Your task to perform on an android device: change alarm snooze length Image 0: 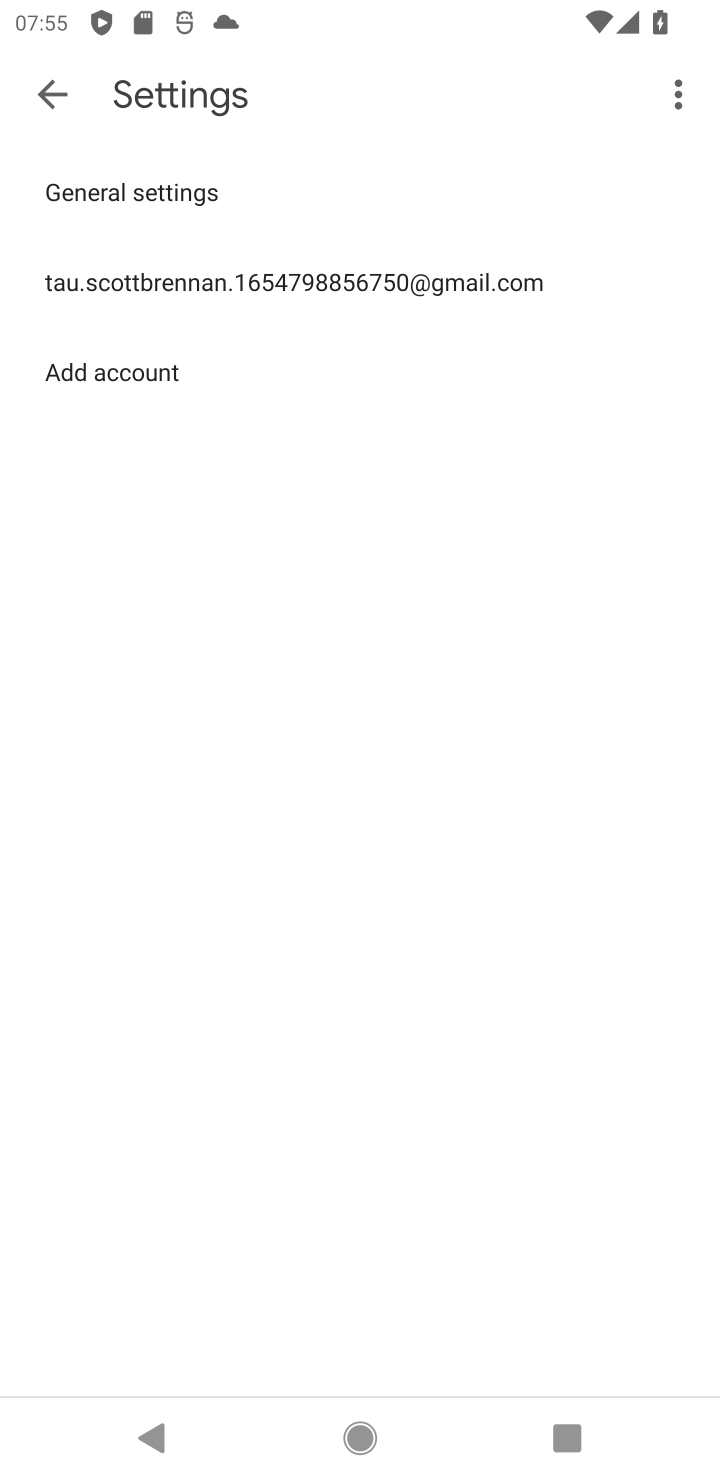
Step 0: press home button
Your task to perform on an android device: change alarm snooze length Image 1: 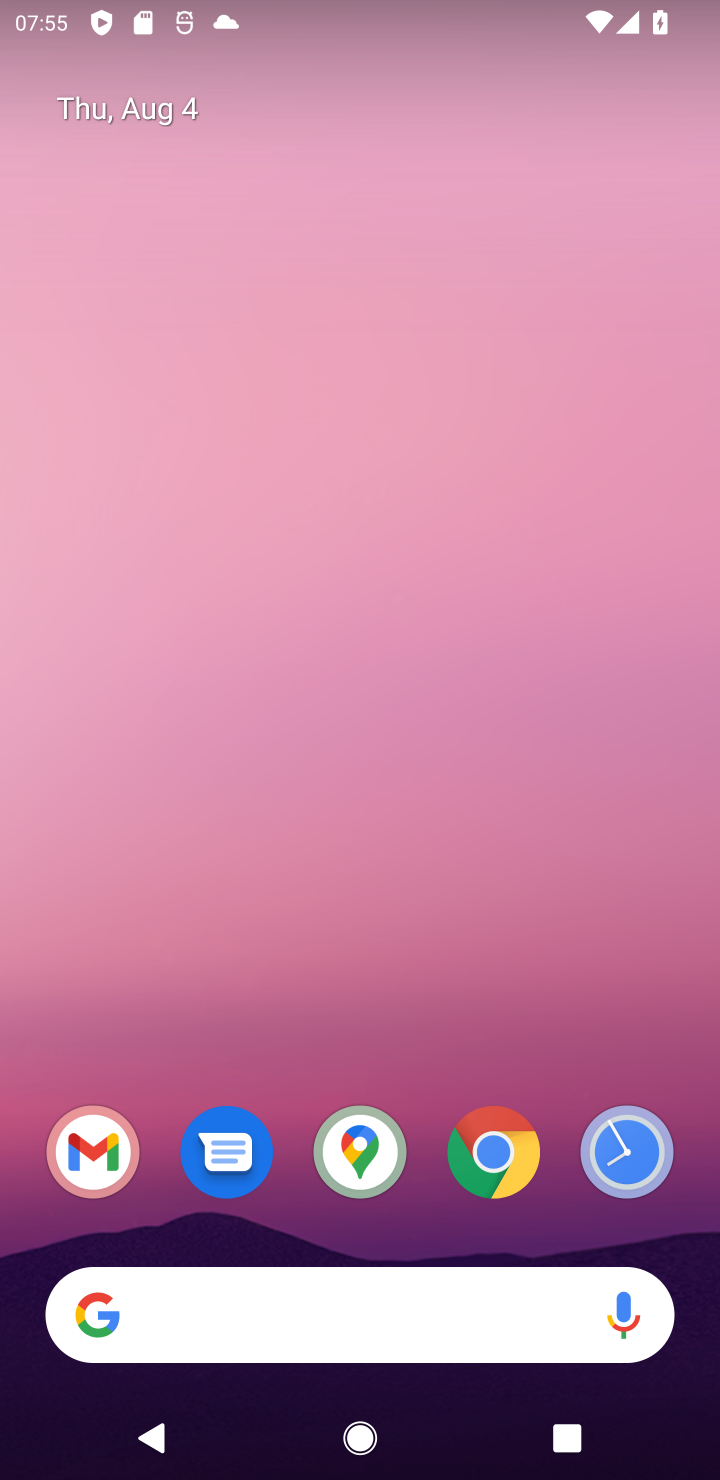
Step 1: drag from (304, 665) to (493, 216)
Your task to perform on an android device: change alarm snooze length Image 2: 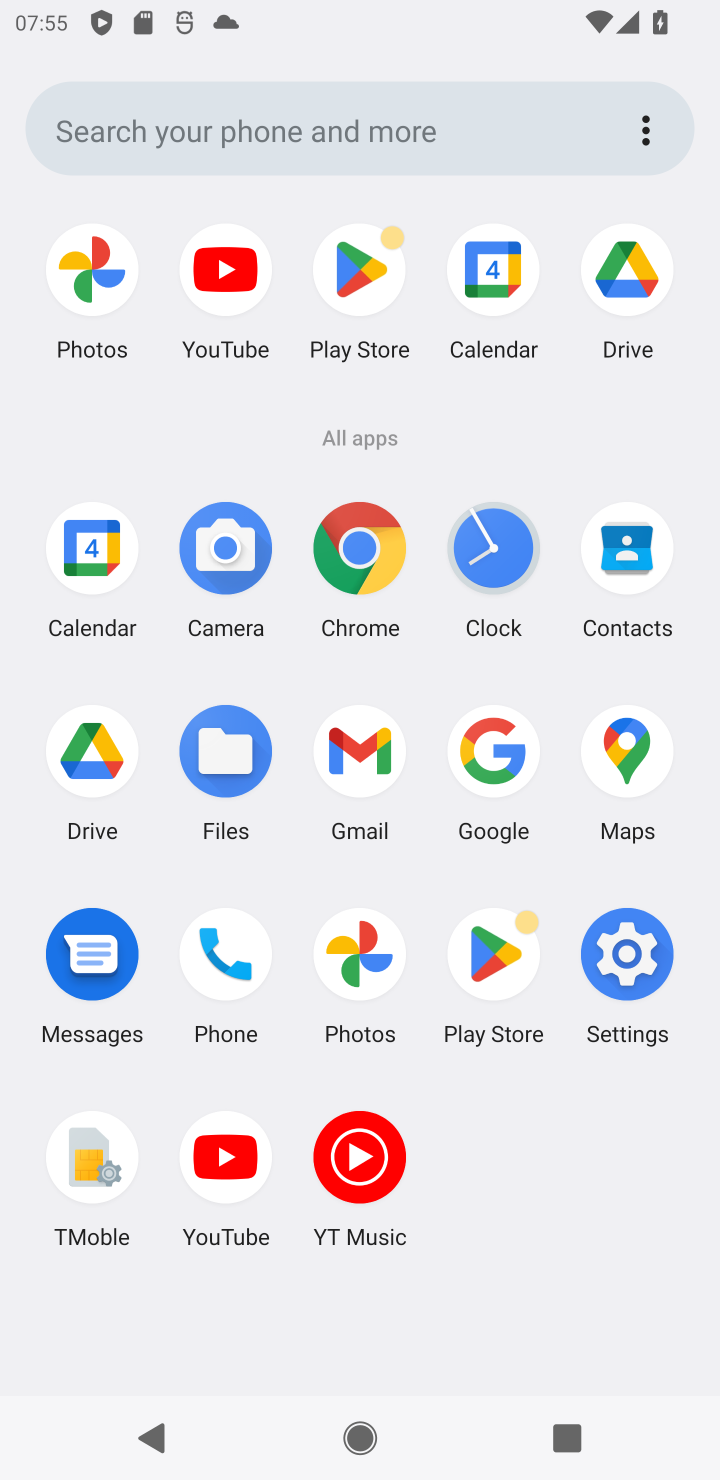
Step 2: click (504, 579)
Your task to perform on an android device: change alarm snooze length Image 3: 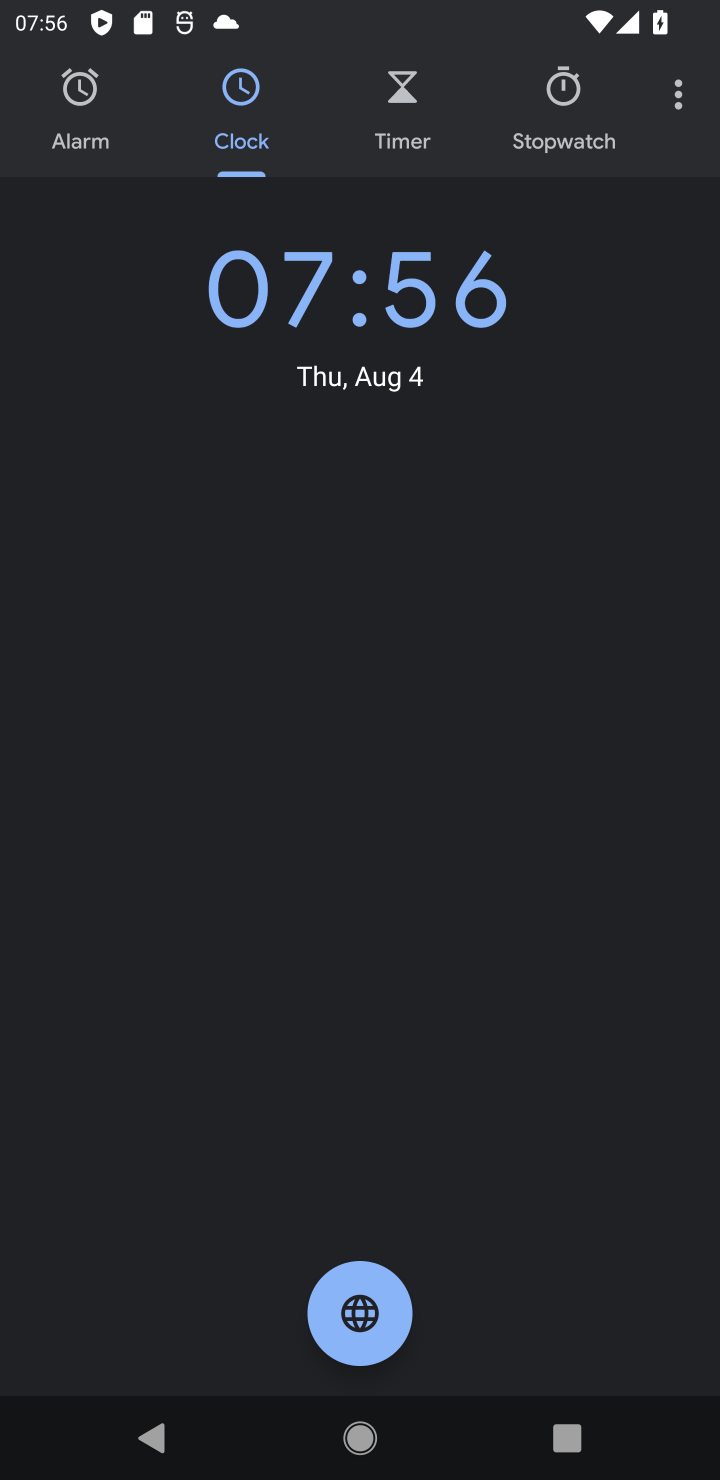
Step 3: click (692, 104)
Your task to perform on an android device: change alarm snooze length Image 4: 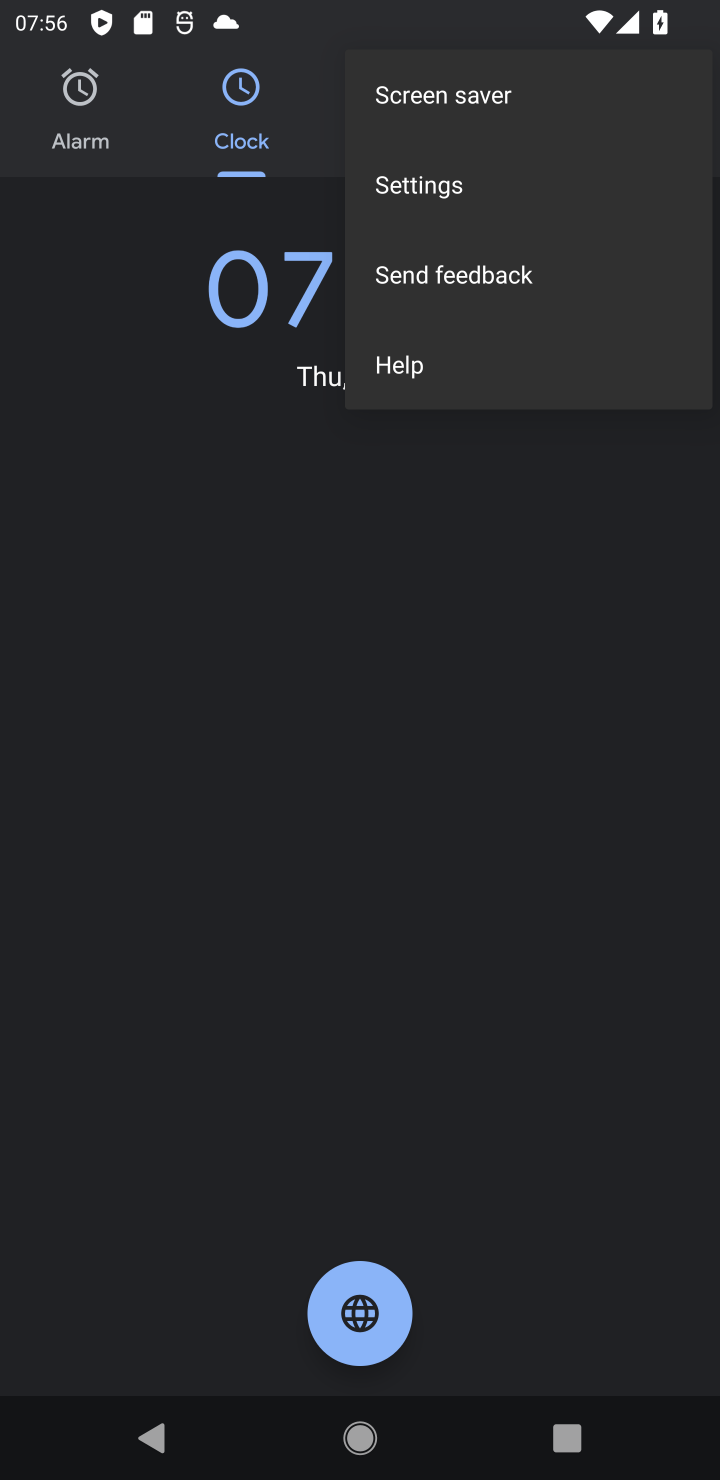
Step 4: click (421, 176)
Your task to perform on an android device: change alarm snooze length Image 5: 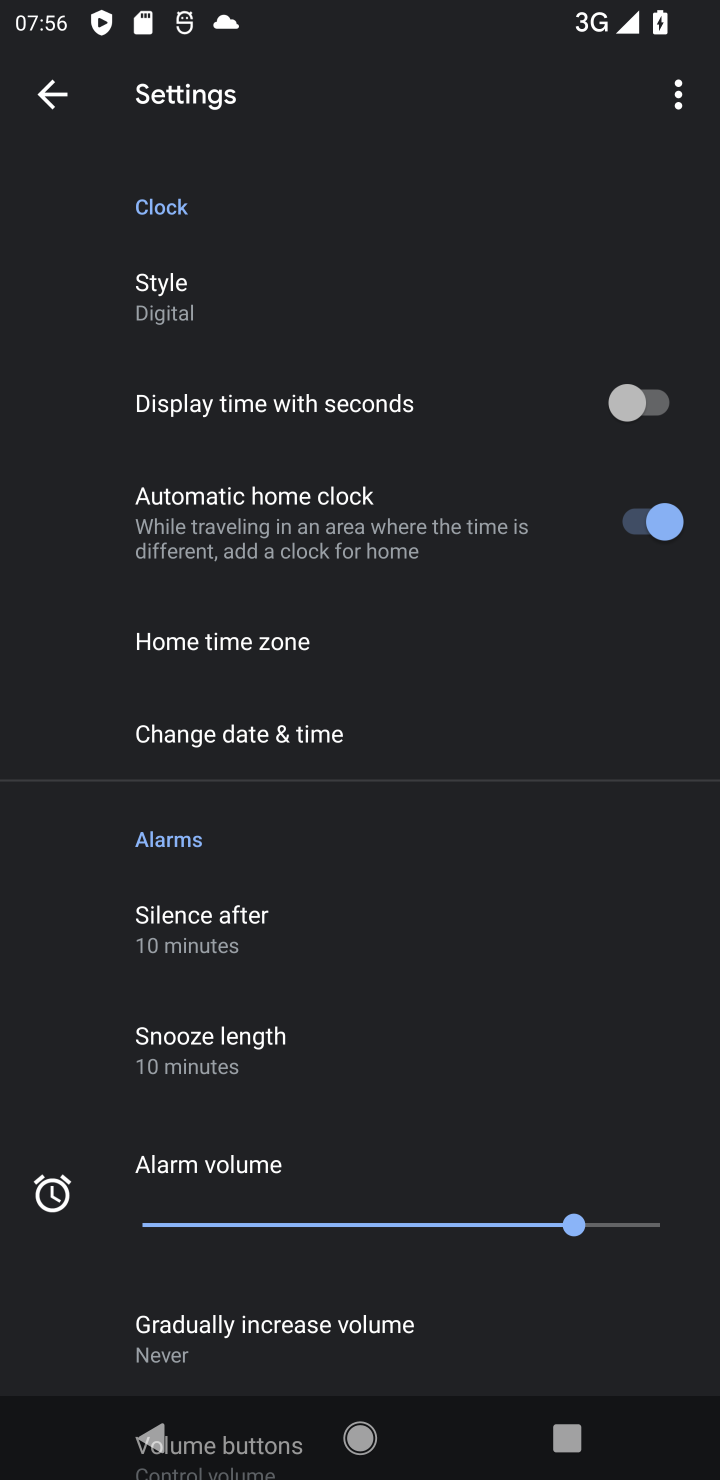
Step 5: click (236, 1060)
Your task to perform on an android device: change alarm snooze length Image 6: 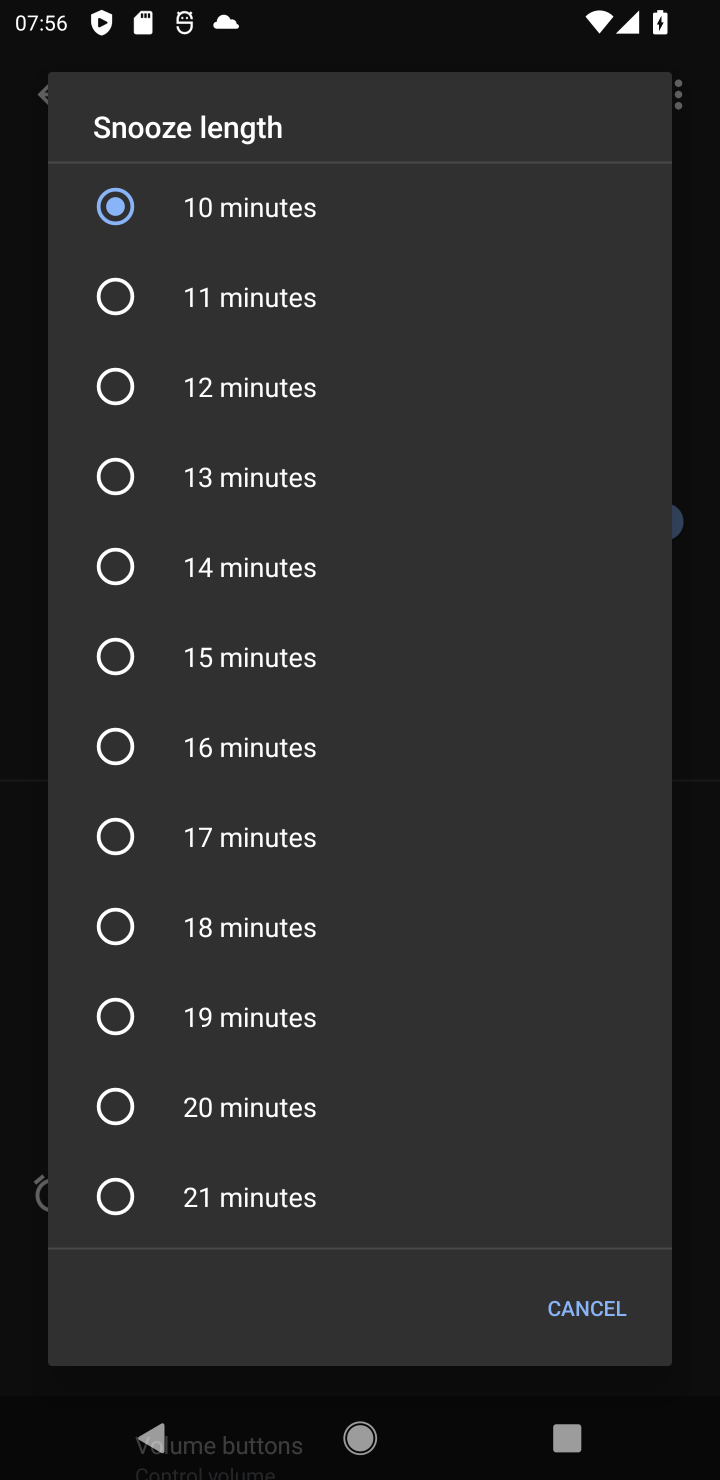
Step 6: click (332, 290)
Your task to perform on an android device: change alarm snooze length Image 7: 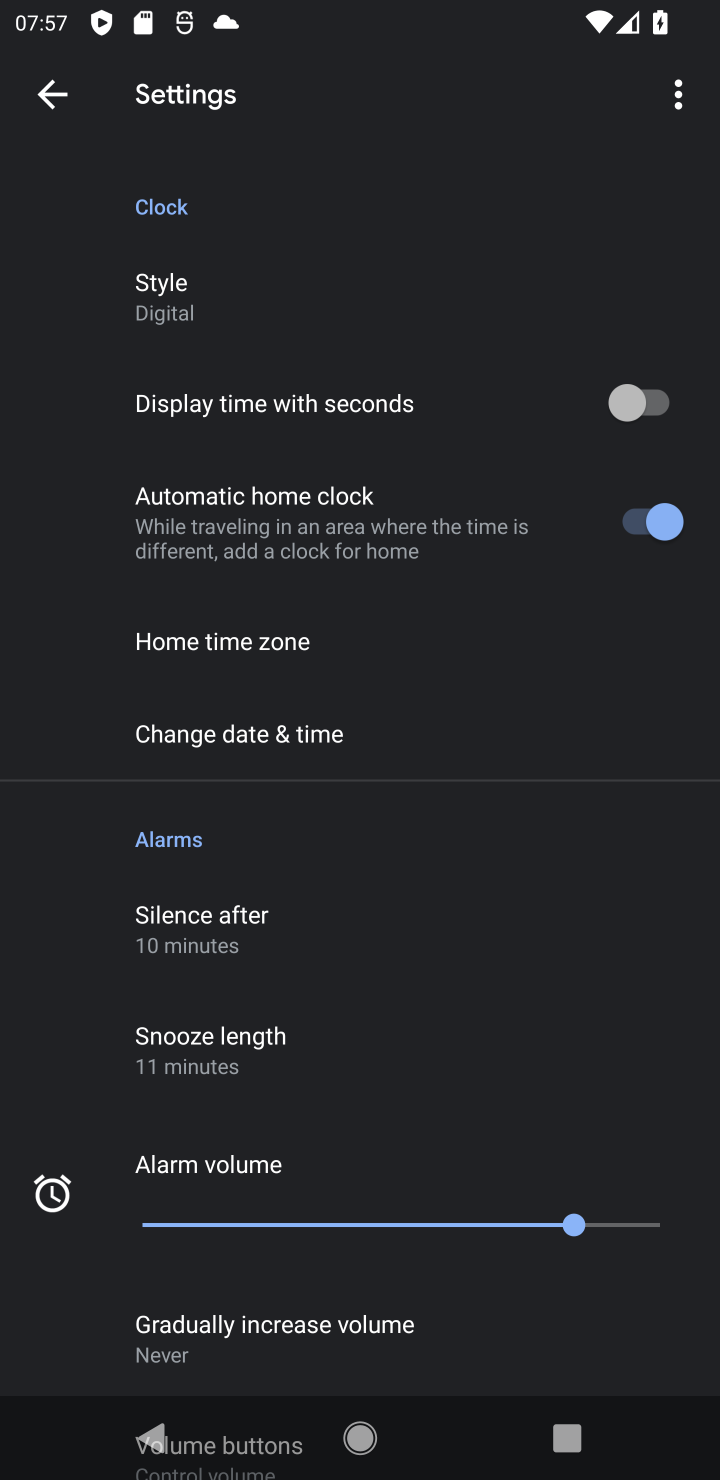
Step 7: task complete